Your task to perform on an android device: allow notifications from all sites in the chrome app Image 0: 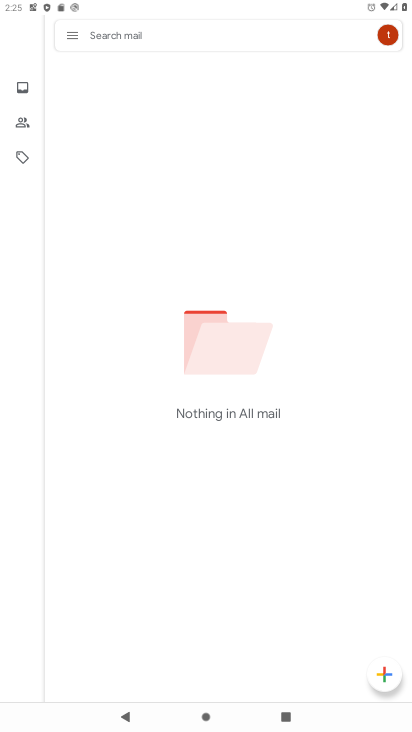
Step 0: press home button
Your task to perform on an android device: allow notifications from all sites in the chrome app Image 1: 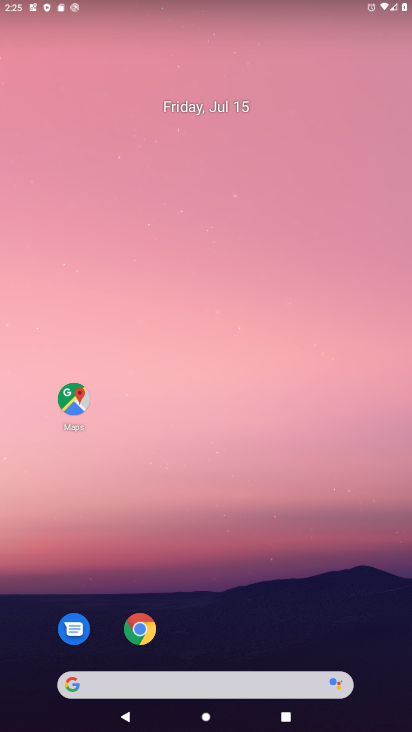
Step 1: drag from (317, 594) to (272, 232)
Your task to perform on an android device: allow notifications from all sites in the chrome app Image 2: 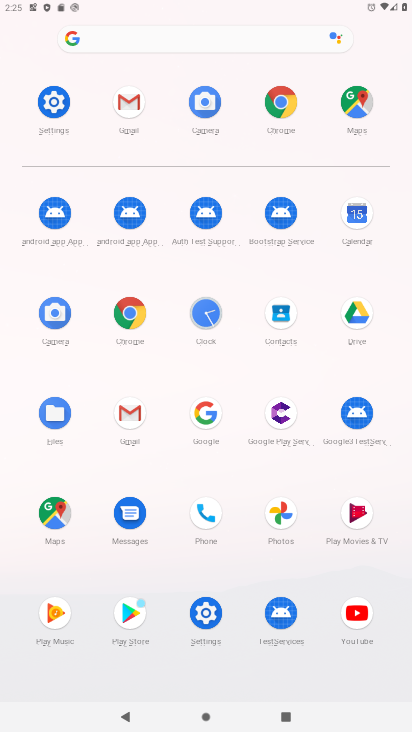
Step 2: click (293, 104)
Your task to perform on an android device: allow notifications from all sites in the chrome app Image 3: 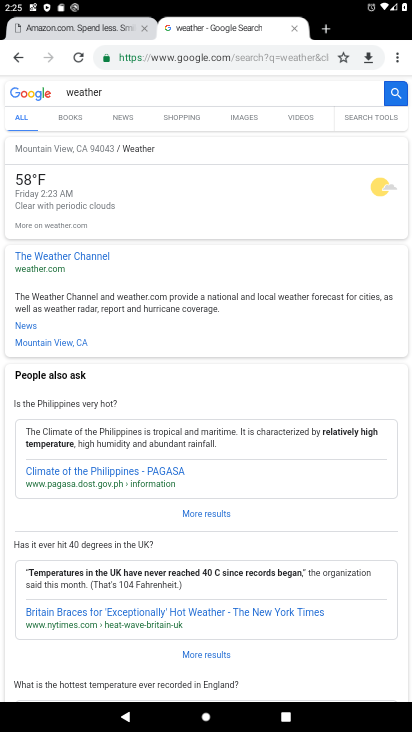
Step 3: press home button
Your task to perform on an android device: allow notifications from all sites in the chrome app Image 4: 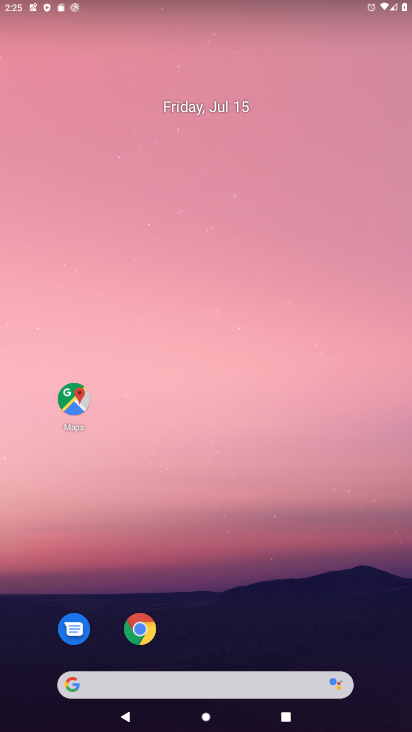
Step 4: drag from (283, 628) to (272, 213)
Your task to perform on an android device: allow notifications from all sites in the chrome app Image 5: 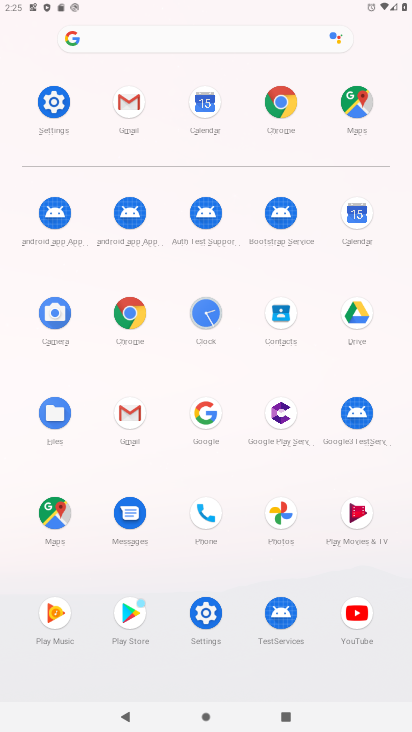
Step 5: click (282, 102)
Your task to perform on an android device: allow notifications from all sites in the chrome app Image 6: 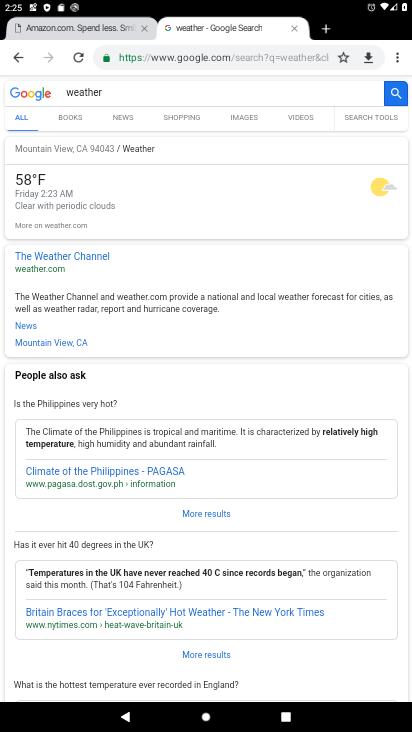
Step 6: drag from (393, 53) to (298, 397)
Your task to perform on an android device: allow notifications from all sites in the chrome app Image 7: 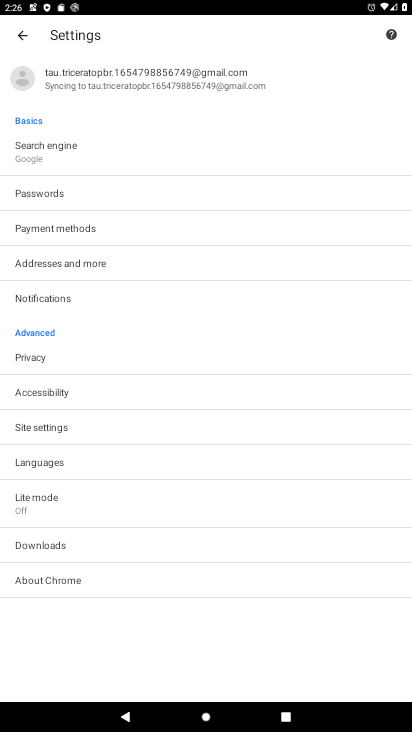
Step 7: click (61, 295)
Your task to perform on an android device: allow notifications from all sites in the chrome app Image 8: 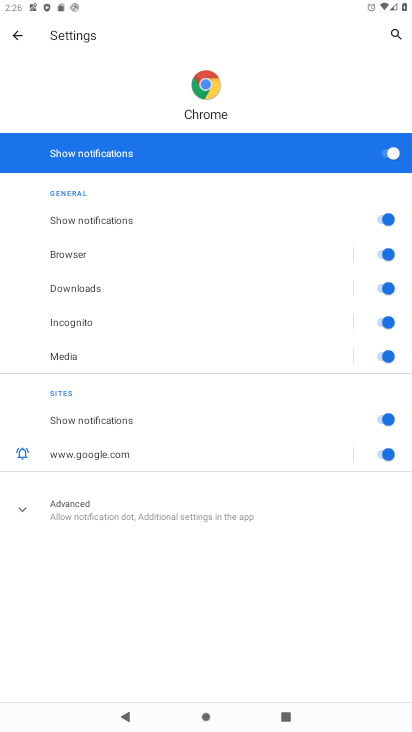
Step 8: task complete